Your task to perform on an android device: Open Google Chrome Image 0: 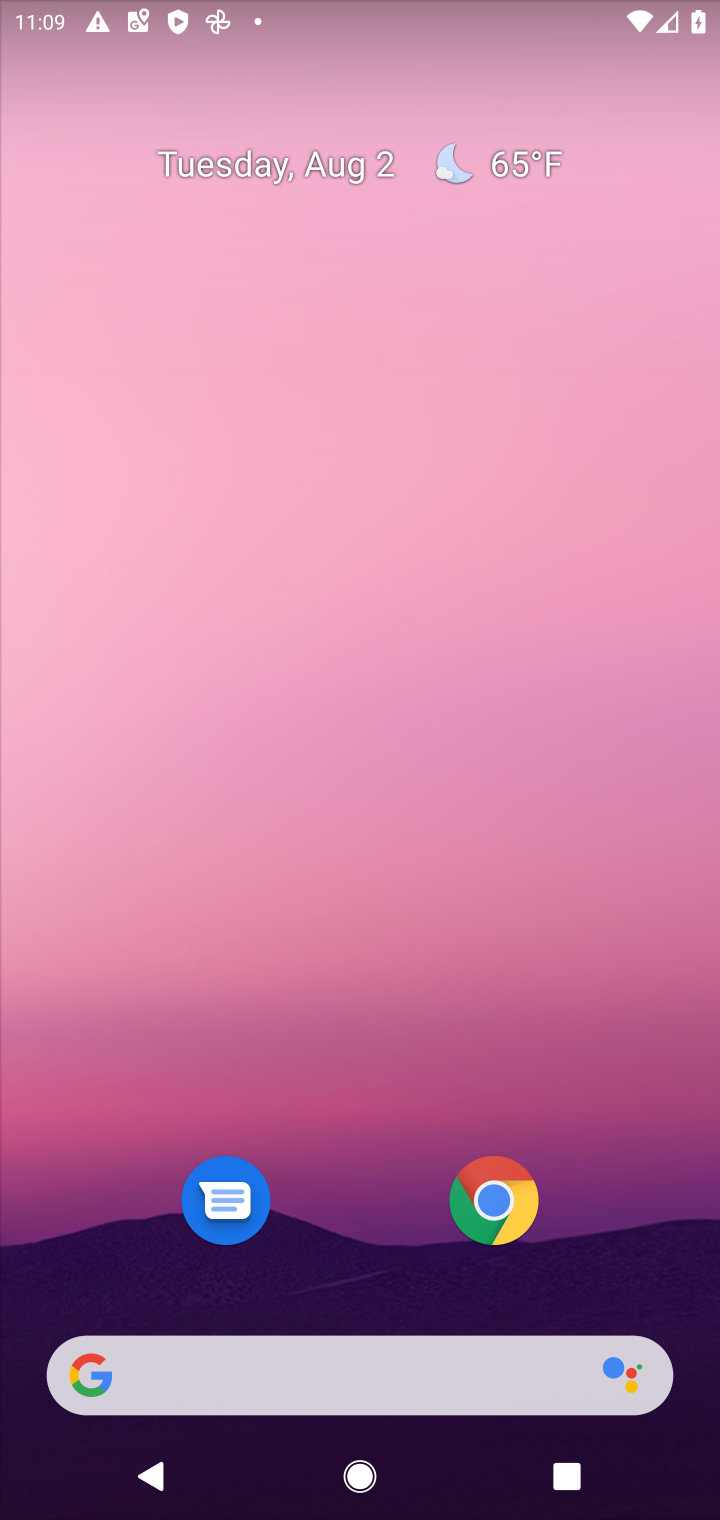
Step 0: click (495, 1198)
Your task to perform on an android device: Open Google Chrome Image 1: 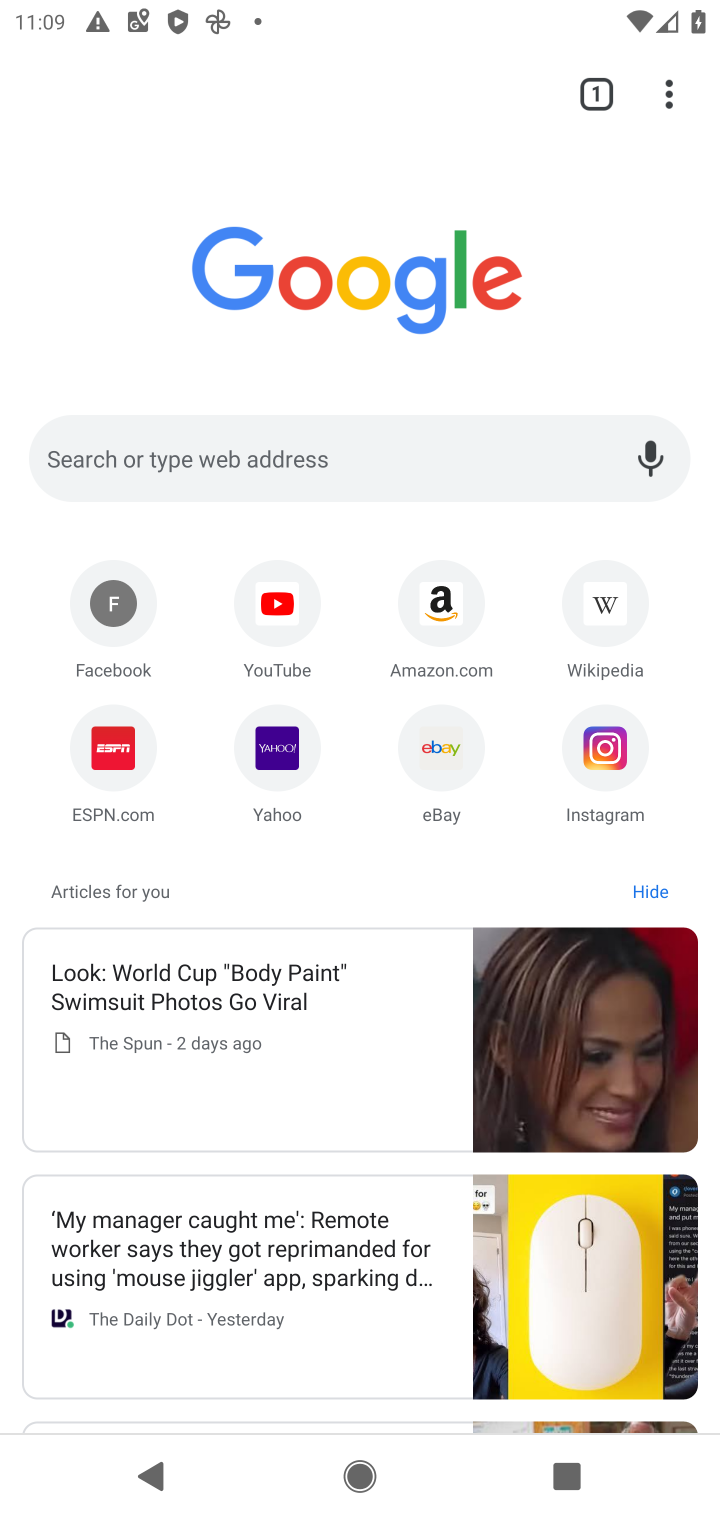
Step 1: task complete